Your task to perform on an android device: see creations saved in the google photos Image 0: 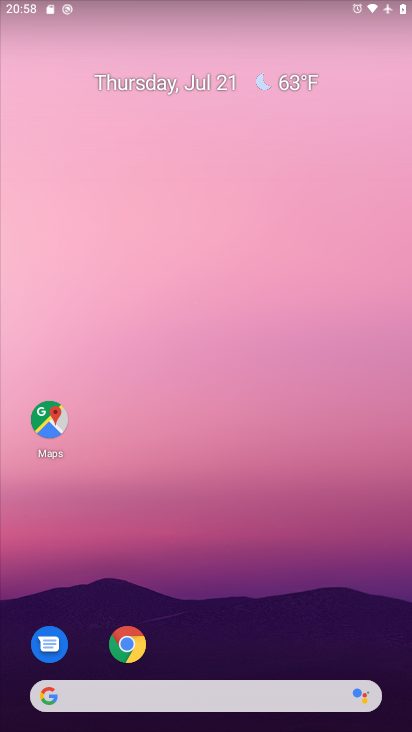
Step 0: drag from (171, 657) to (219, 279)
Your task to perform on an android device: see creations saved in the google photos Image 1: 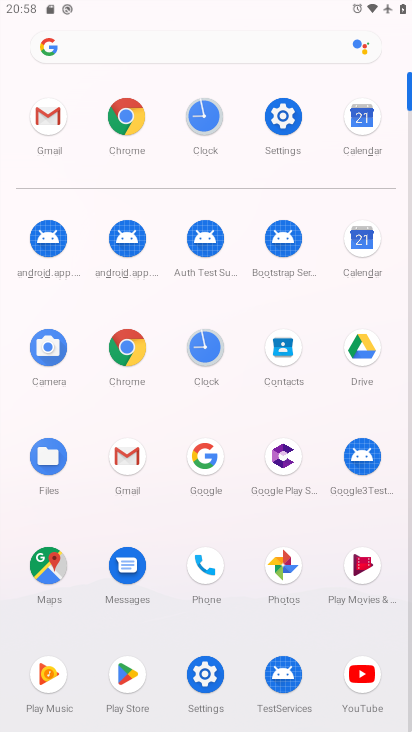
Step 1: click (292, 561)
Your task to perform on an android device: see creations saved in the google photos Image 2: 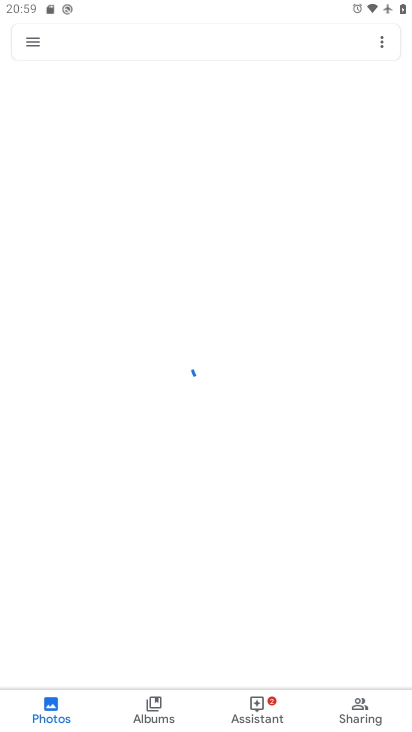
Step 2: click (147, 705)
Your task to perform on an android device: see creations saved in the google photos Image 3: 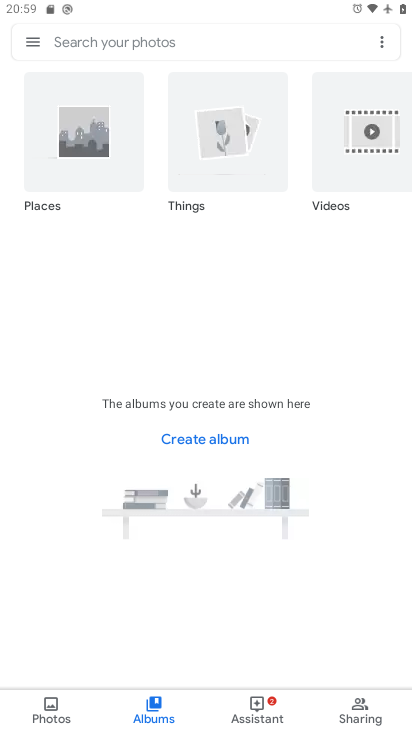
Step 3: task complete